Your task to perform on an android device: Open the stopwatch Image 0: 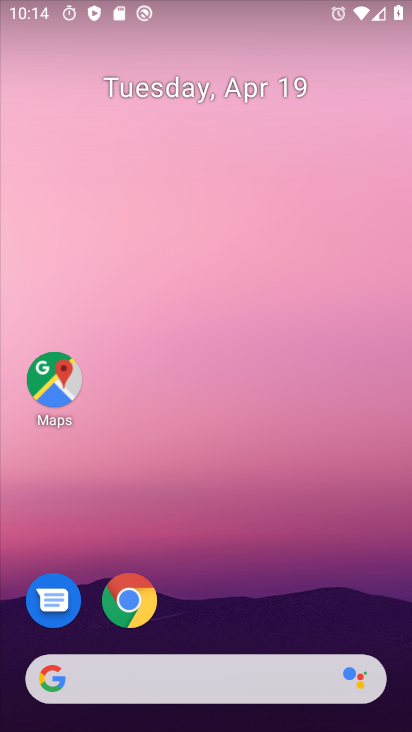
Step 0: drag from (217, 613) to (340, 6)
Your task to perform on an android device: Open the stopwatch Image 1: 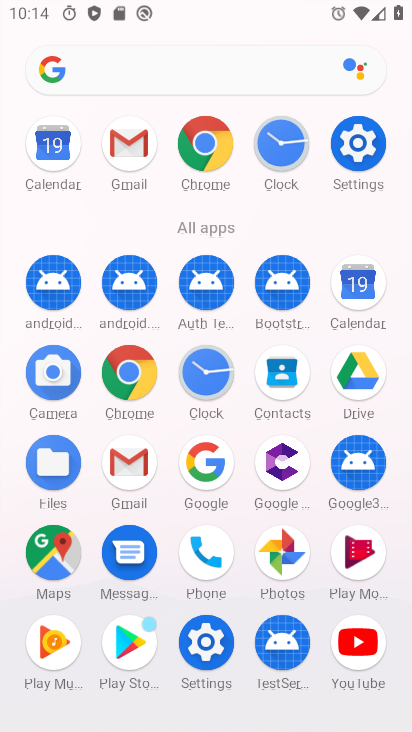
Step 1: click (274, 174)
Your task to perform on an android device: Open the stopwatch Image 2: 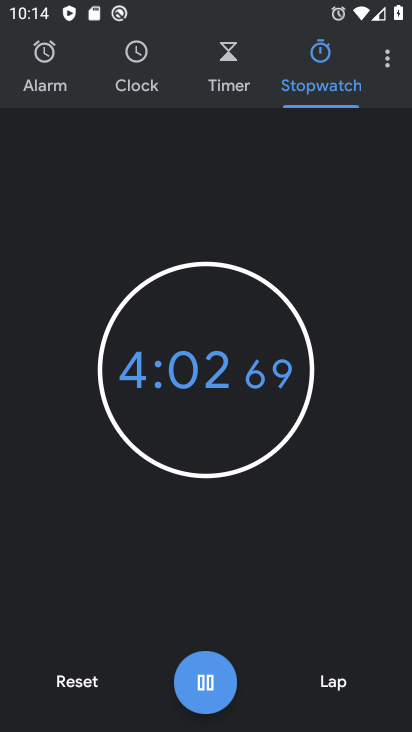
Step 2: click (76, 676)
Your task to perform on an android device: Open the stopwatch Image 3: 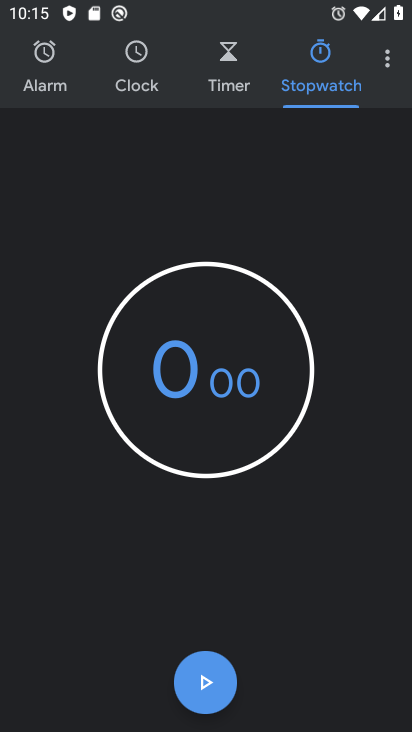
Step 3: task complete